Your task to perform on an android device: open wifi settings Image 0: 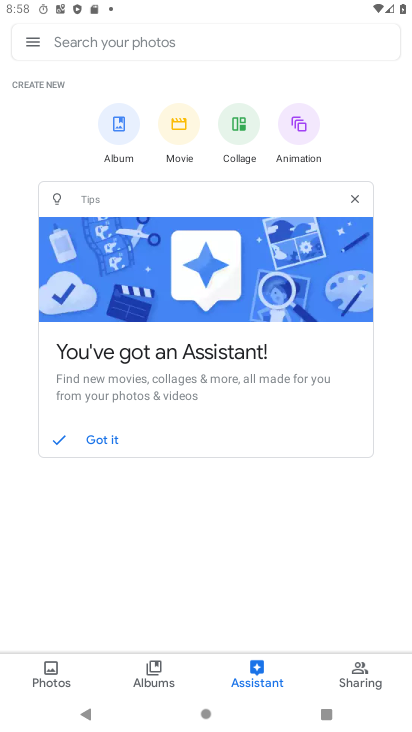
Step 0: press home button
Your task to perform on an android device: open wifi settings Image 1: 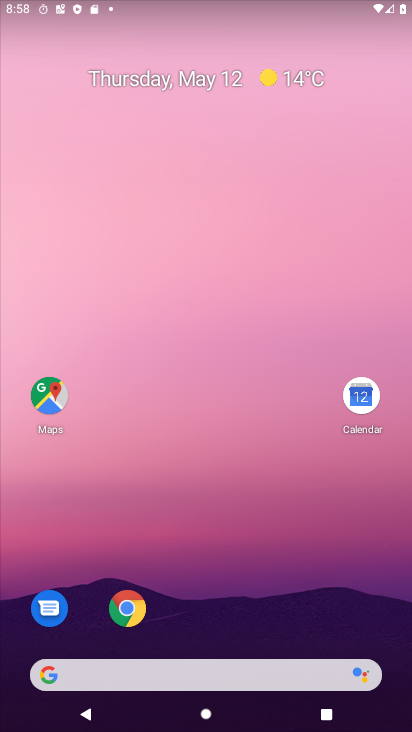
Step 1: drag from (186, 590) to (115, 163)
Your task to perform on an android device: open wifi settings Image 2: 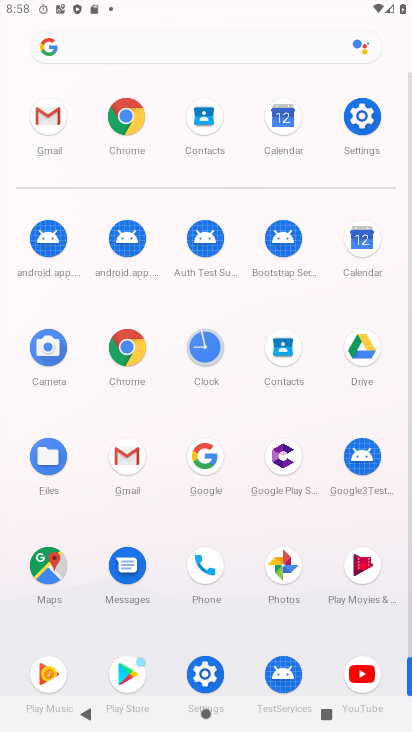
Step 2: click (346, 106)
Your task to perform on an android device: open wifi settings Image 3: 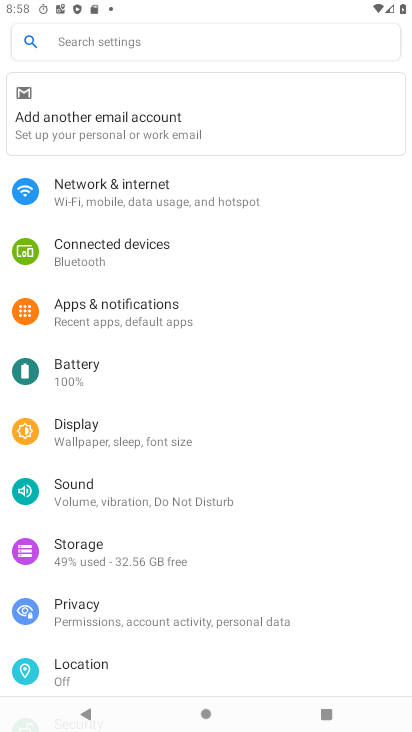
Step 3: click (137, 198)
Your task to perform on an android device: open wifi settings Image 4: 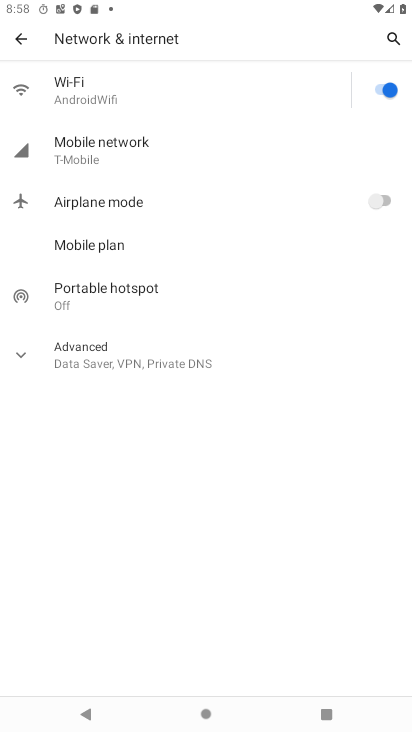
Step 4: click (56, 83)
Your task to perform on an android device: open wifi settings Image 5: 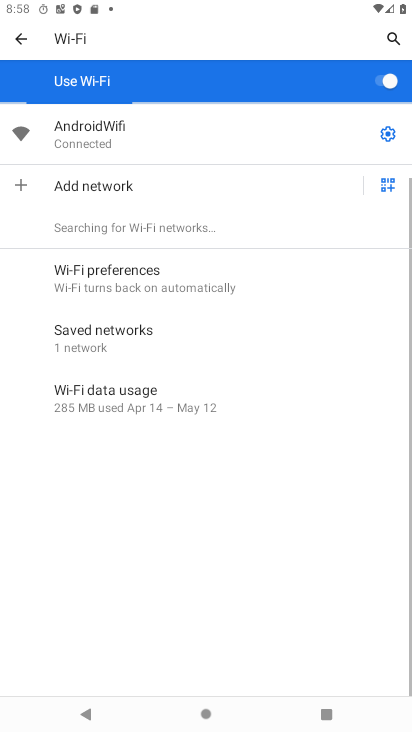
Step 5: task complete